Your task to perform on an android device: toggle sleep mode Image 0: 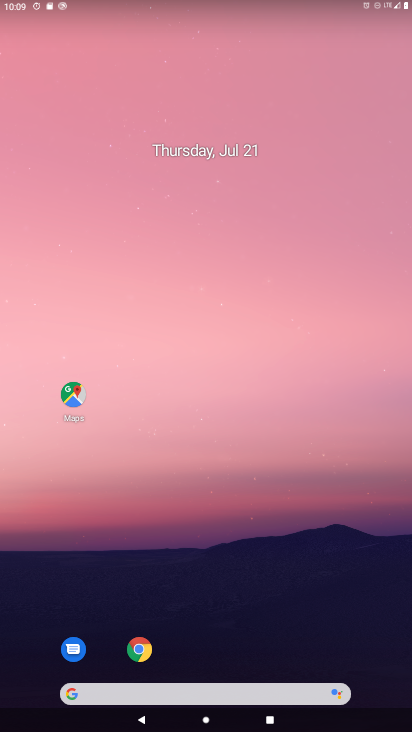
Step 0: drag from (271, 502) to (153, 78)
Your task to perform on an android device: toggle sleep mode Image 1: 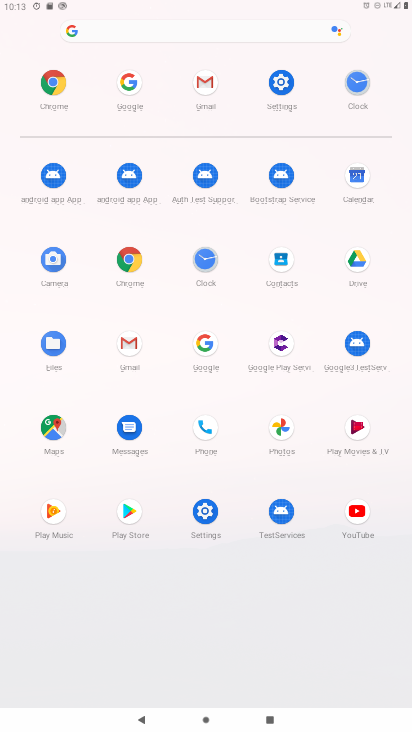
Step 1: click (201, 519)
Your task to perform on an android device: toggle sleep mode Image 2: 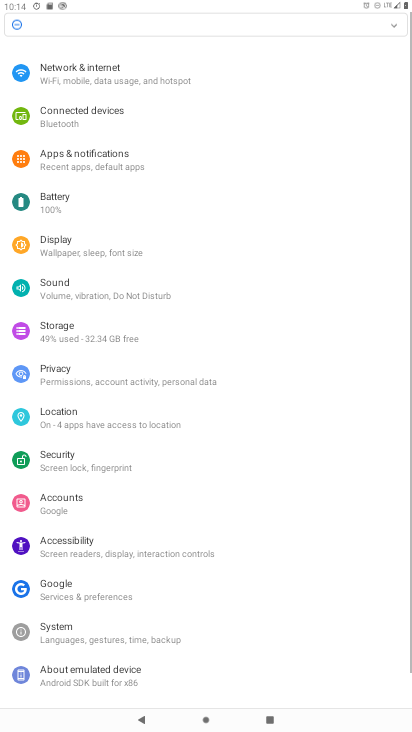
Step 2: task complete